Your task to perform on an android device: turn on airplane mode Image 0: 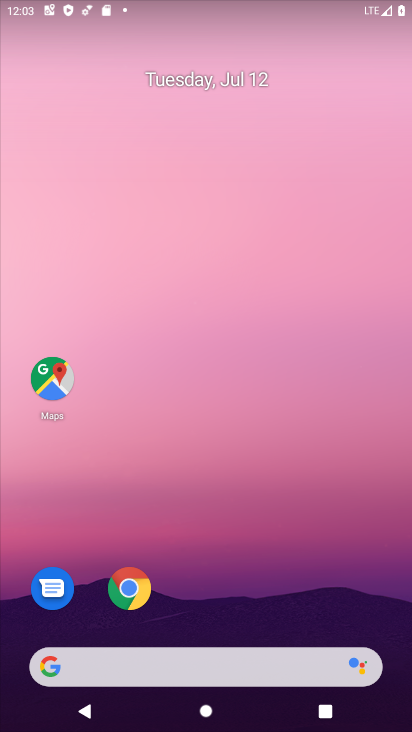
Step 0: drag from (261, 605) to (304, 37)
Your task to perform on an android device: turn on airplane mode Image 1: 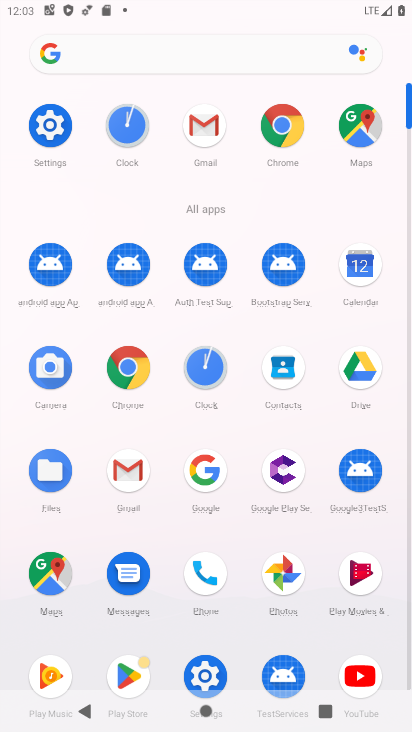
Step 1: click (49, 118)
Your task to perform on an android device: turn on airplane mode Image 2: 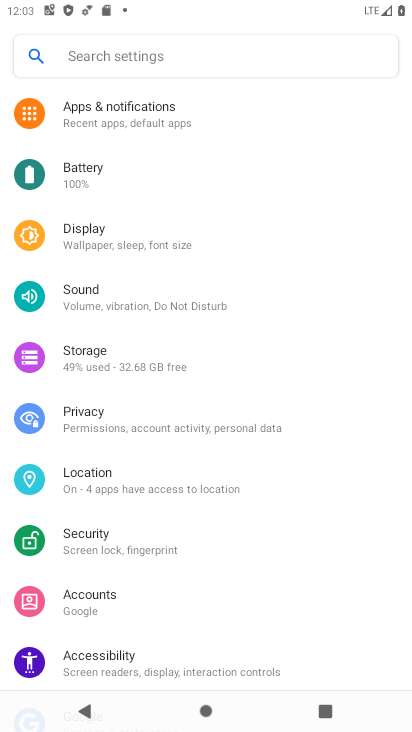
Step 2: drag from (296, 170) to (223, 610)
Your task to perform on an android device: turn on airplane mode Image 3: 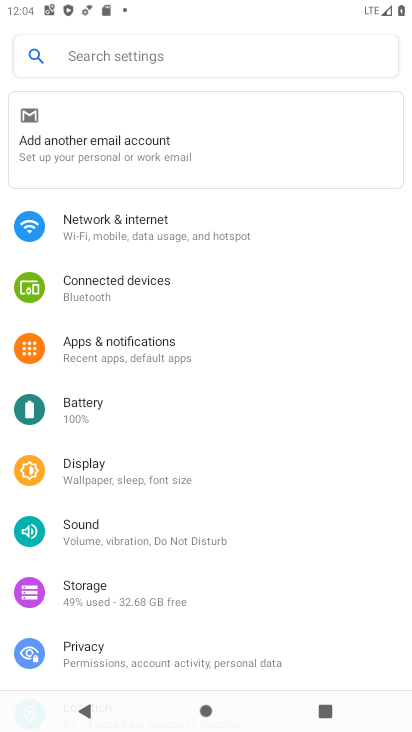
Step 3: click (147, 230)
Your task to perform on an android device: turn on airplane mode Image 4: 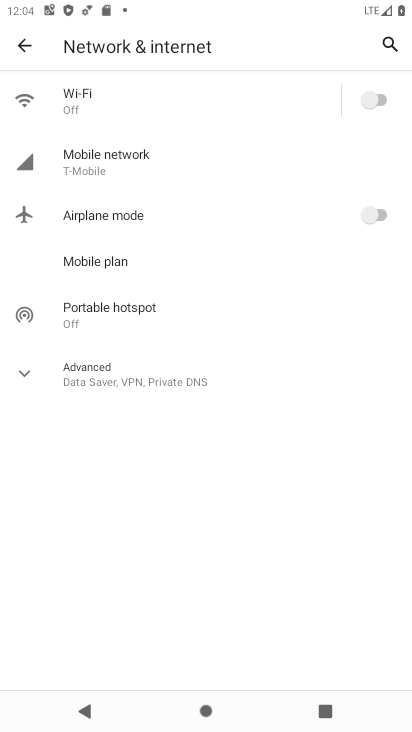
Step 4: click (377, 211)
Your task to perform on an android device: turn on airplane mode Image 5: 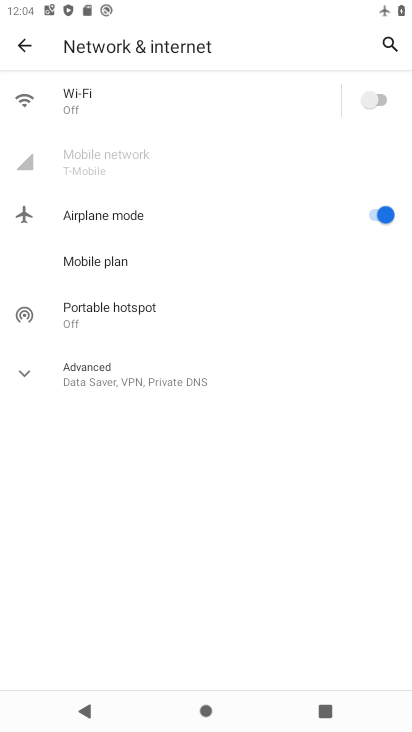
Step 5: task complete